Your task to perform on an android device: see sites visited before in the chrome app Image 0: 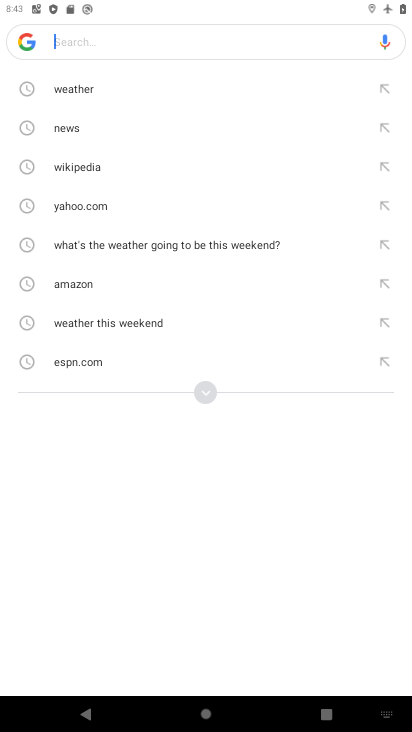
Step 0: press home button
Your task to perform on an android device: see sites visited before in the chrome app Image 1: 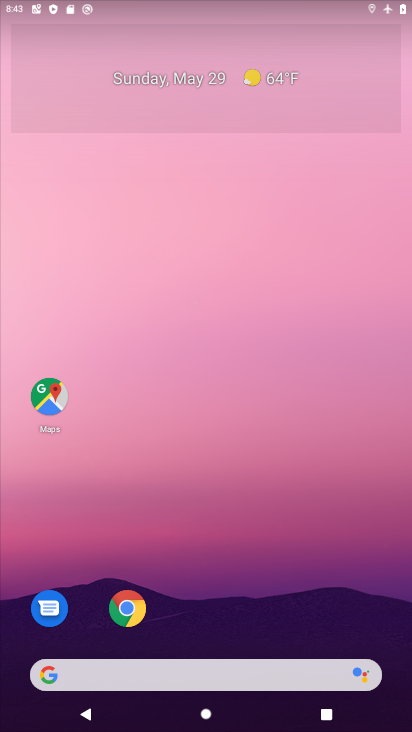
Step 1: click (128, 610)
Your task to perform on an android device: see sites visited before in the chrome app Image 2: 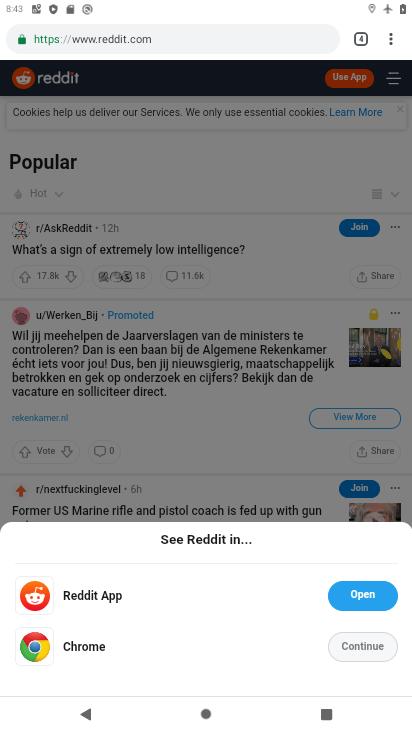
Step 2: click (390, 34)
Your task to perform on an android device: see sites visited before in the chrome app Image 3: 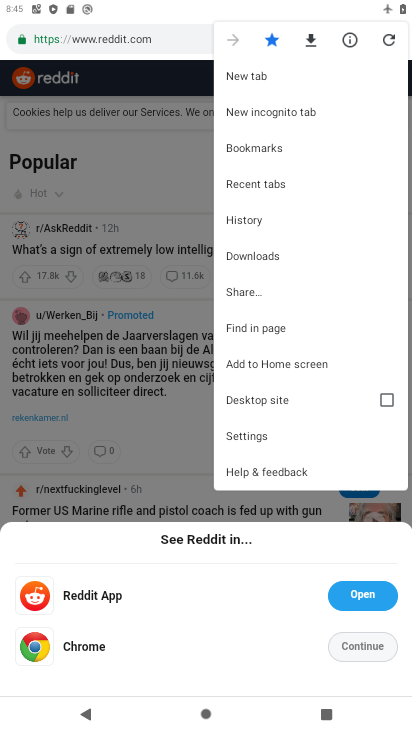
Step 3: click (258, 175)
Your task to perform on an android device: see sites visited before in the chrome app Image 4: 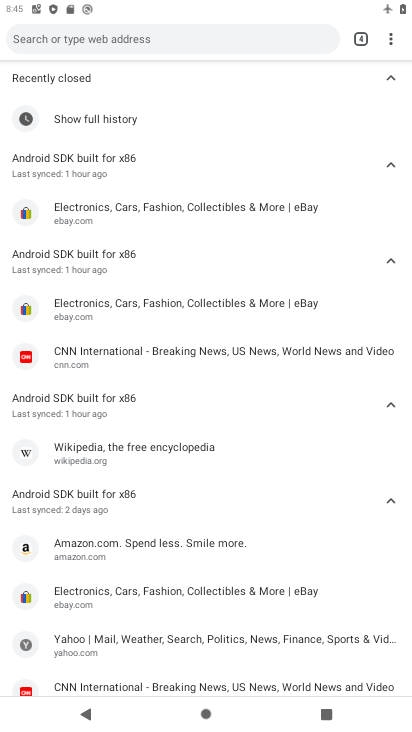
Step 4: task complete